Your task to perform on an android device: visit the assistant section in the google photos Image 0: 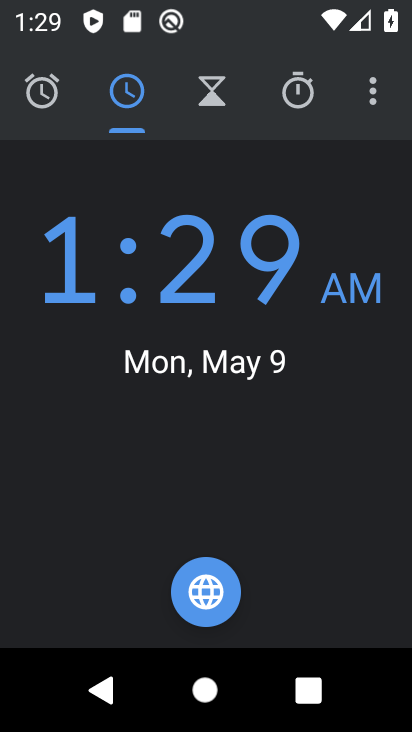
Step 0: press home button
Your task to perform on an android device: visit the assistant section in the google photos Image 1: 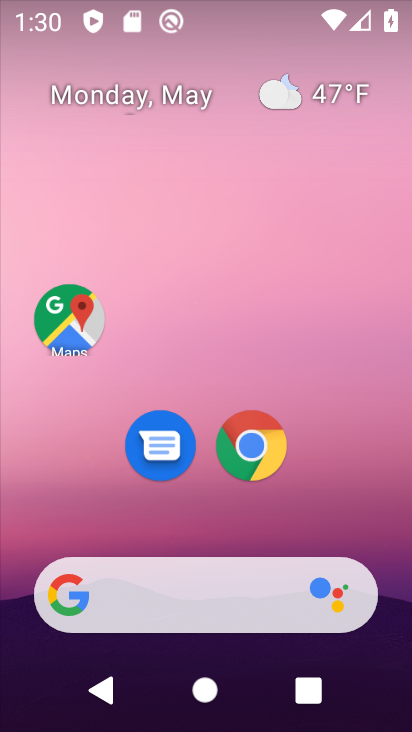
Step 1: drag from (307, 517) to (363, 10)
Your task to perform on an android device: visit the assistant section in the google photos Image 2: 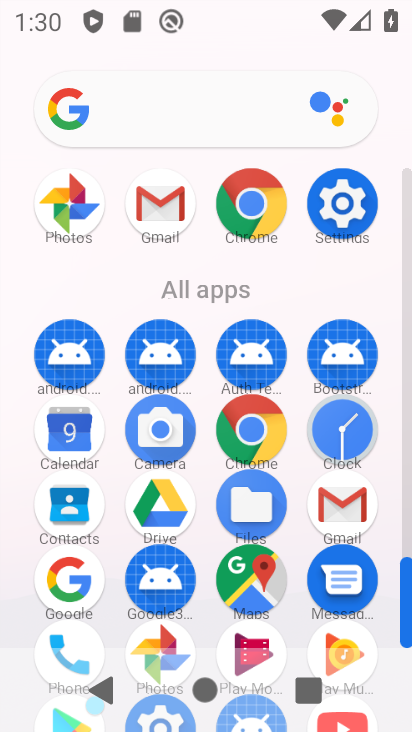
Step 2: click (62, 221)
Your task to perform on an android device: visit the assistant section in the google photos Image 3: 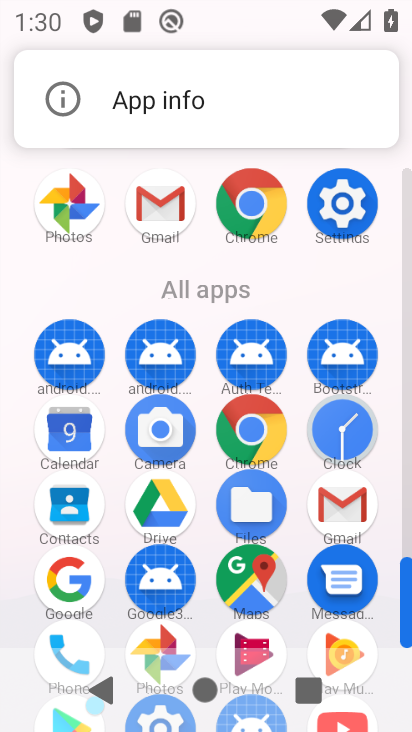
Step 3: click (51, 222)
Your task to perform on an android device: visit the assistant section in the google photos Image 4: 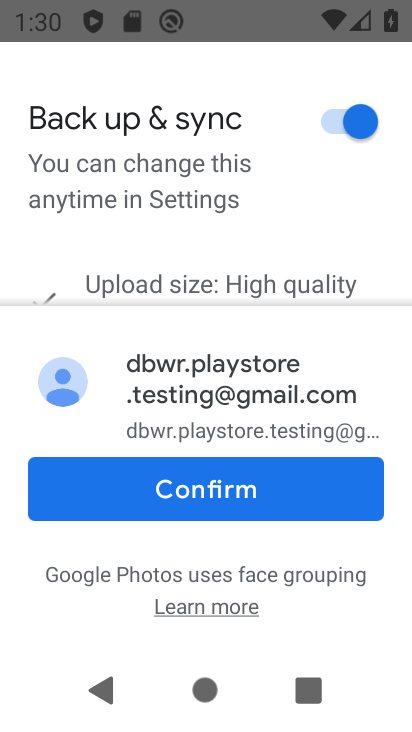
Step 4: click (207, 471)
Your task to perform on an android device: visit the assistant section in the google photos Image 5: 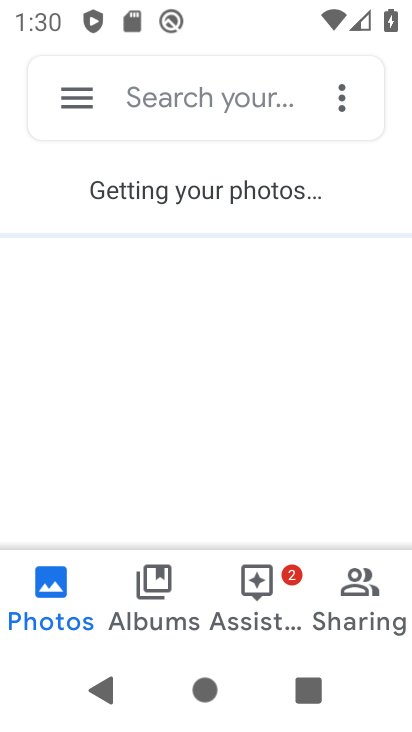
Step 5: click (240, 613)
Your task to perform on an android device: visit the assistant section in the google photos Image 6: 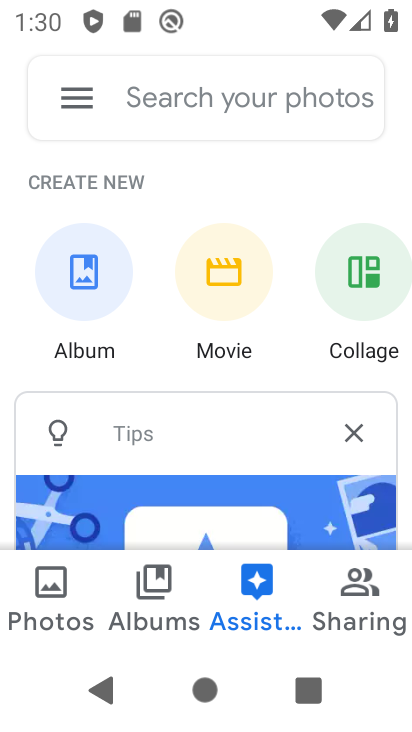
Step 6: task complete